Your task to perform on an android device: delete browsing data in the chrome app Image 0: 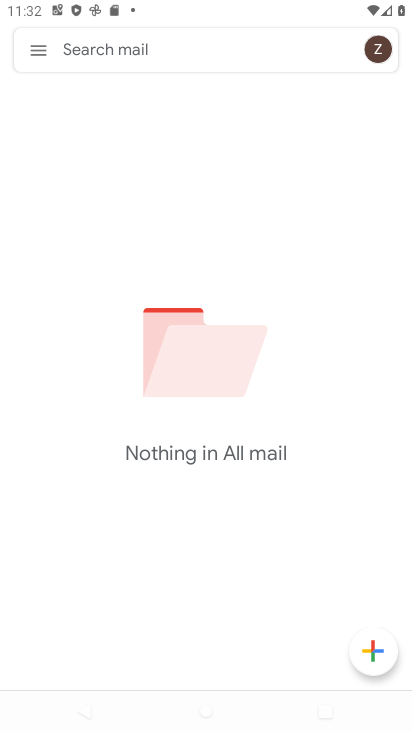
Step 0: press home button
Your task to perform on an android device: delete browsing data in the chrome app Image 1: 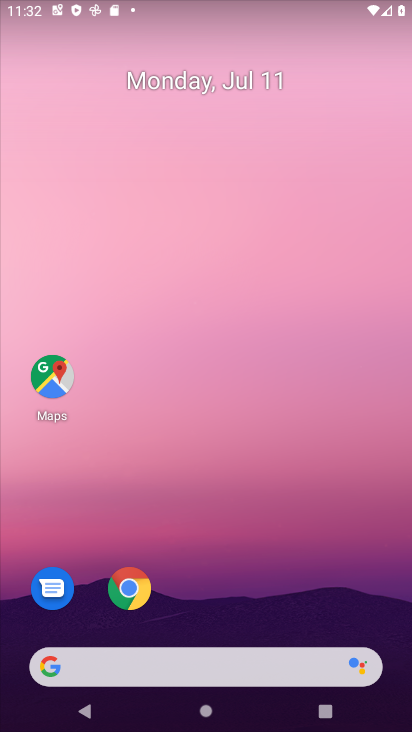
Step 1: click (125, 588)
Your task to perform on an android device: delete browsing data in the chrome app Image 2: 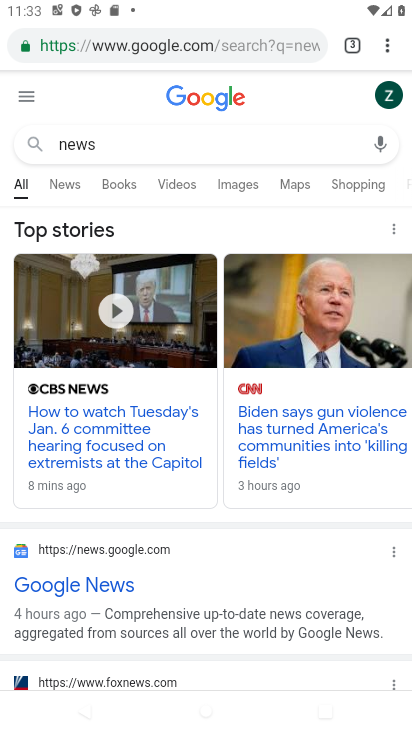
Step 2: click (385, 48)
Your task to perform on an android device: delete browsing data in the chrome app Image 3: 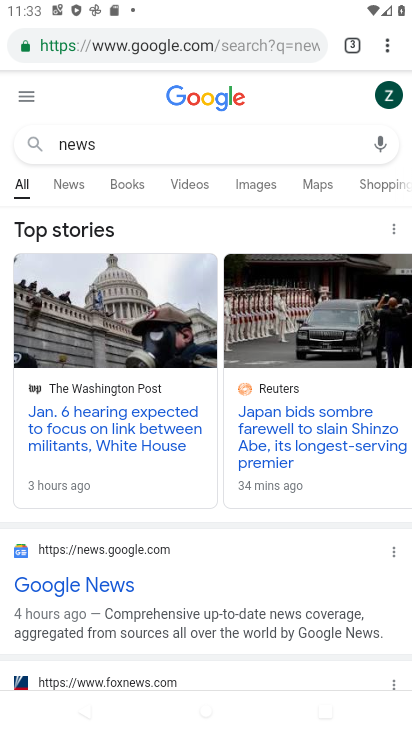
Step 3: click (382, 42)
Your task to perform on an android device: delete browsing data in the chrome app Image 4: 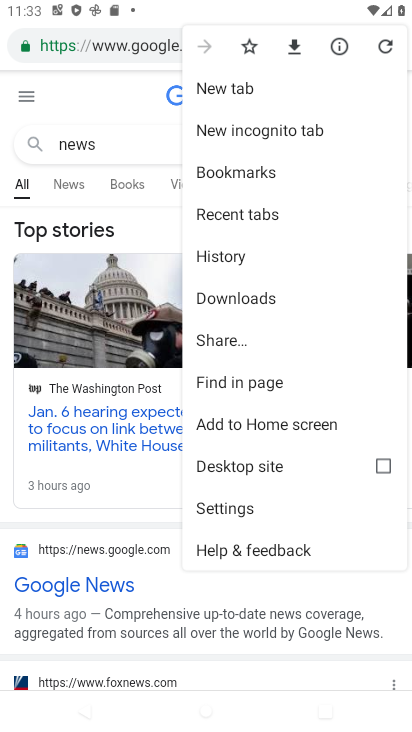
Step 4: click (236, 252)
Your task to perform on an android device: delete browsing data in the chrome app Image 5: 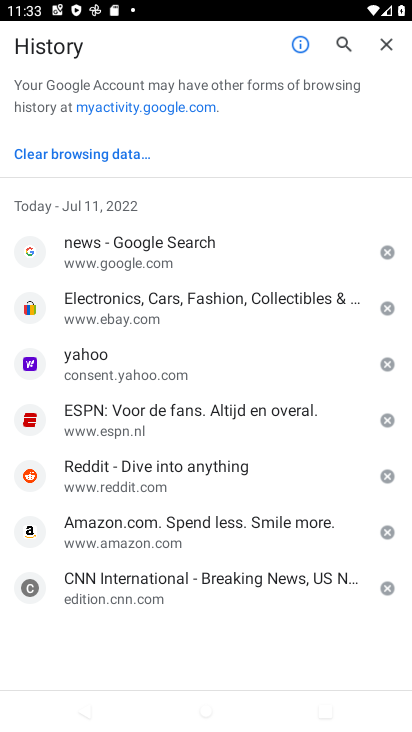
Step 5: click (126, 156)
Your task to perform on an android device: delete browsing data in the chrome app Image 6: 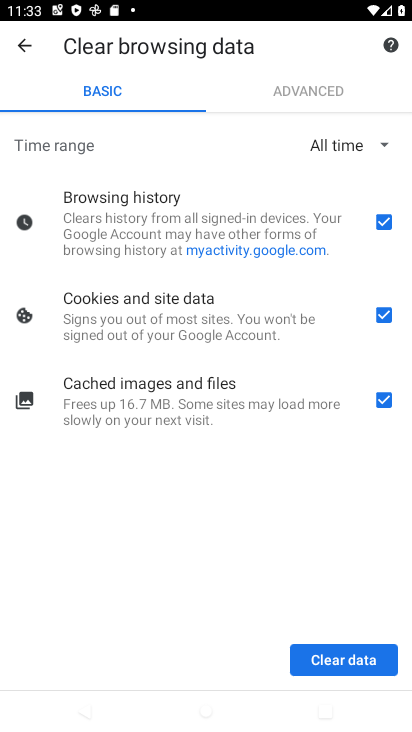
Step 6: click (345, 654)
Your task to perform on an android device: delete browsing data in the chrome app Image 7: 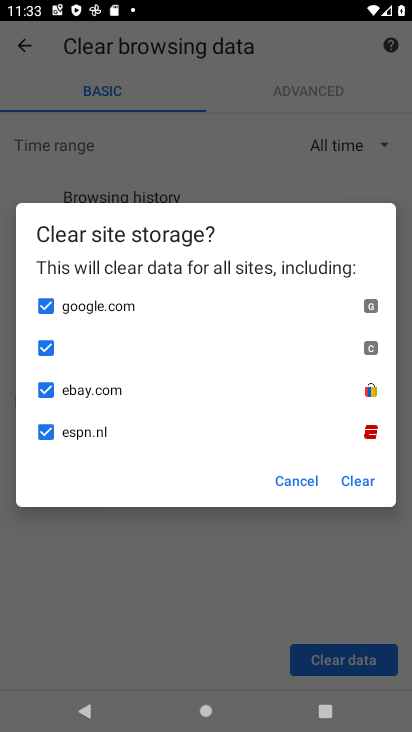
Step 7: click (357, 477)
Your task to perform on an android device: delete browsing data in the chrome app Image 8: 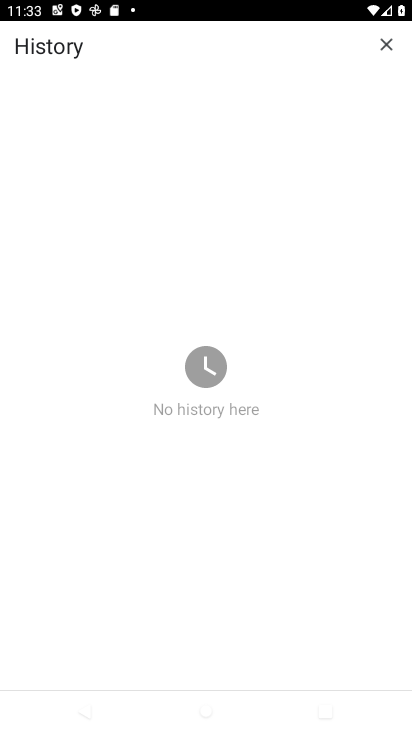
Step 8: task complete